Your task to perform on an android device: refresh tabs in the chrome app Image 0: 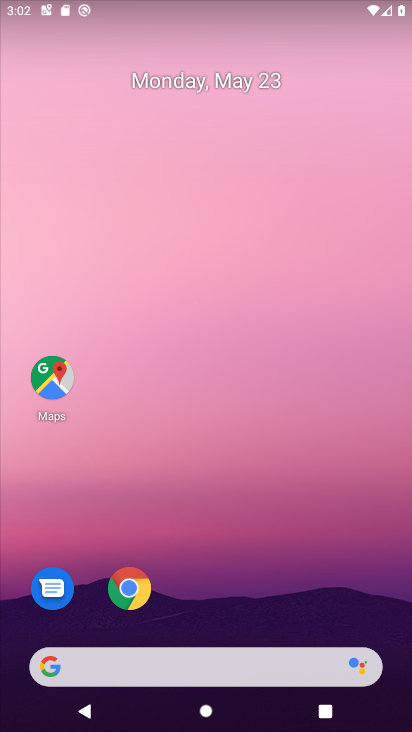
Step 0: drag from (217, 582) to (294, 6)
Your task to perform on an android device: refresh tabs in the chrome app Image 1: 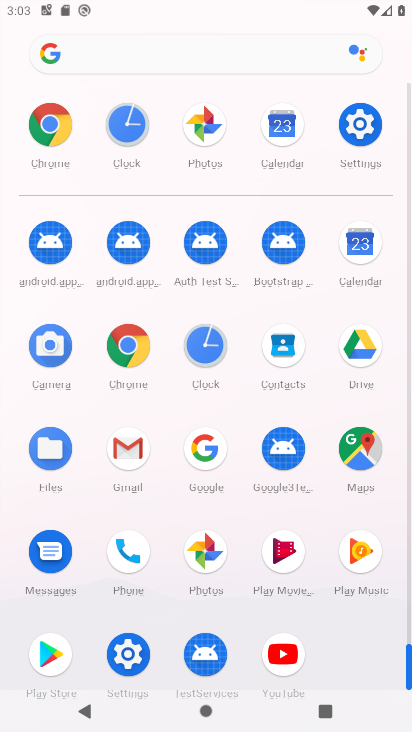
Step 1: click (120, 349)
Your task to perform on an android device: refresh tabs in the chrome app Image 2: 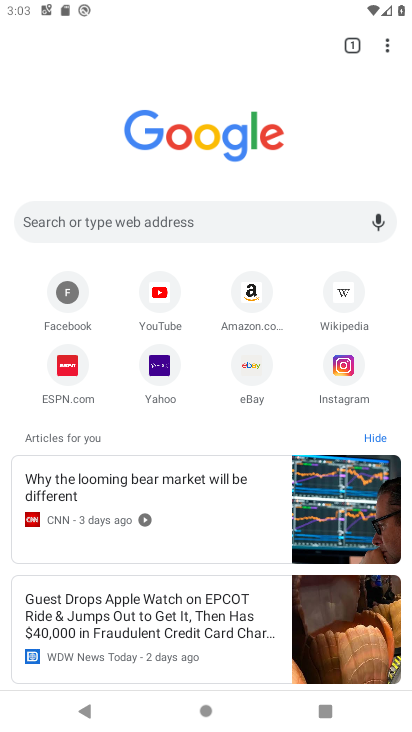
Step 2: click (385, 57)
Your task to perform on an android device: refresh tabs in the chrome app Image 3: 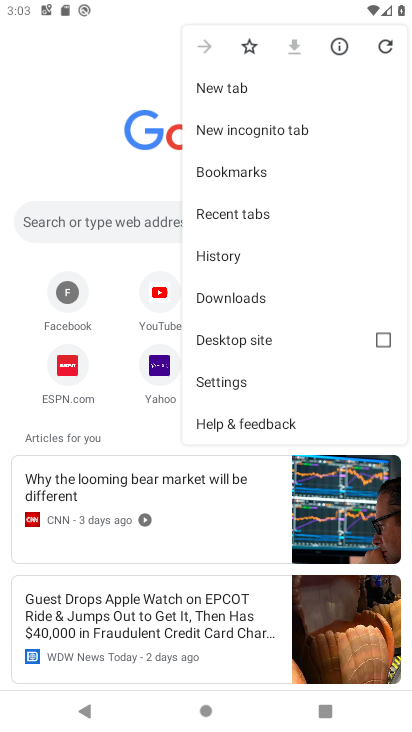
Step 3: click (385, 56)
Your task to perform on an android device: refresh tabs in the chrome app Image 4: 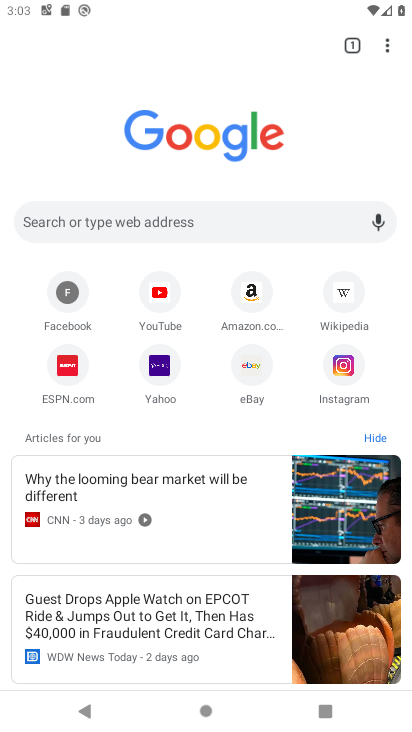
Step 4: task complete